Your task to perform on an android device: Open the web browser Image 0: 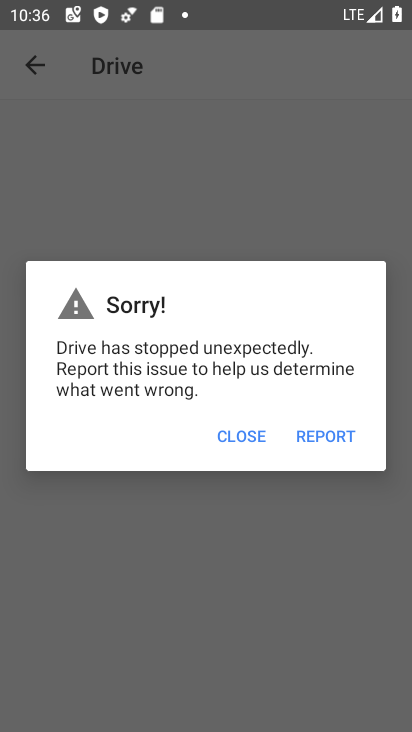
Step 0: press home button
Your task to perform on an android device: Open the web browser Image 1: 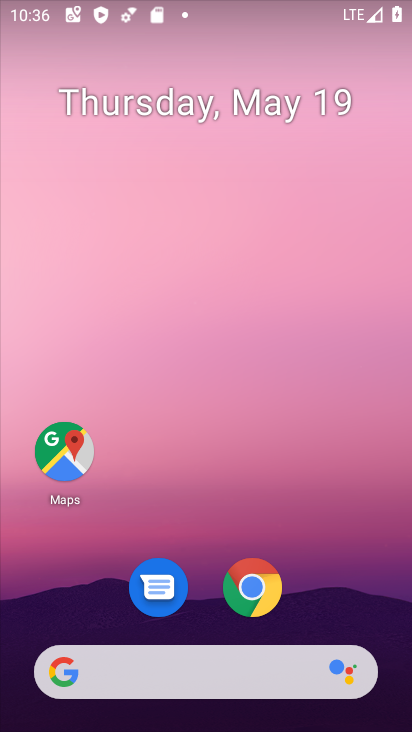
Step 1: click (135, 662)
Your task to perform on an android device: Open the web browser Image 2: 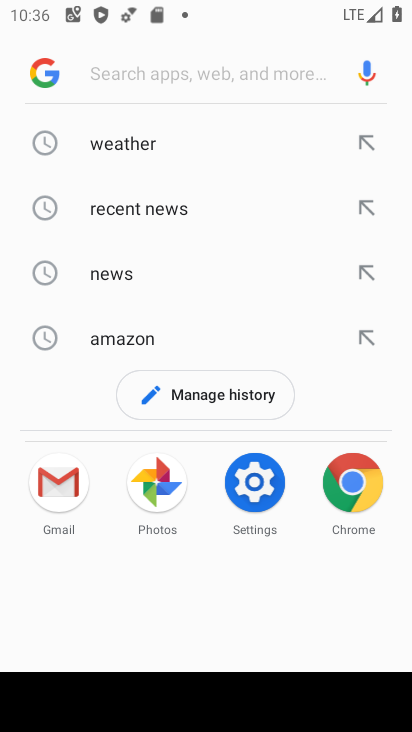
Step 2: task complete